Your task to perform on an android device: Open Reddit.com Image 0: 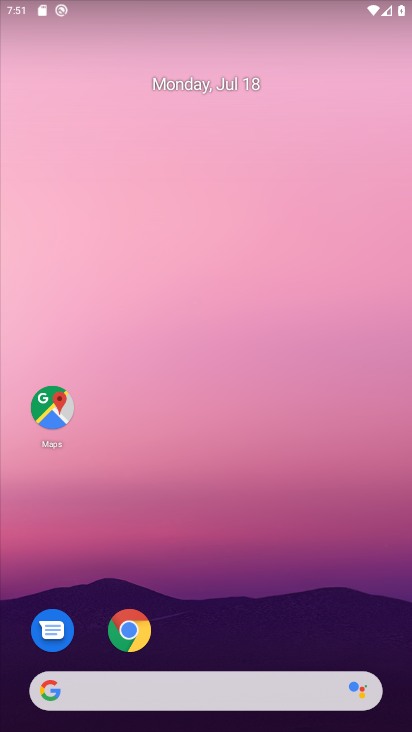
Step 0: drag from (290, 626) to (289, 39)
Your task to perform on an android device: Open Reddit.com Image 1: 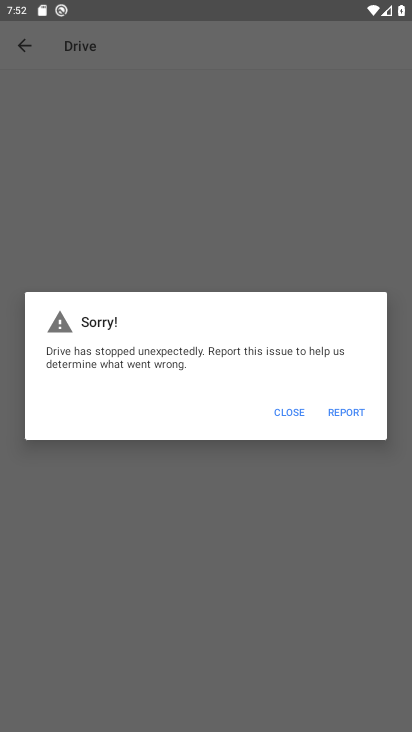
Step 1: press home button
Your task to perform on an android device: Open Reddit.com Image 2: 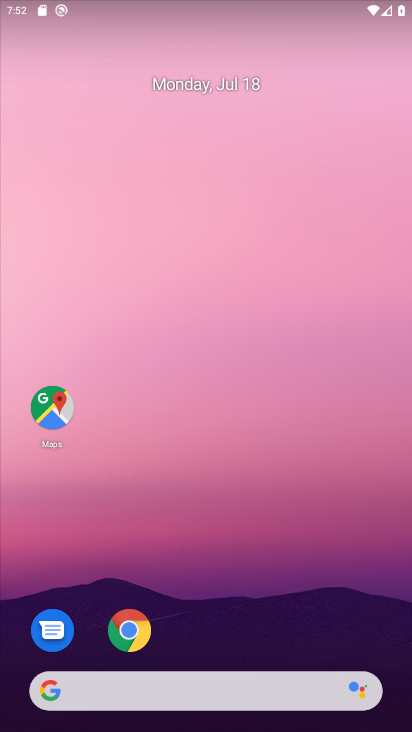
Step 2: drag from (203, 656) to (171, 188)
Your task to perform on an android device: Open Reddit.com Image 3: 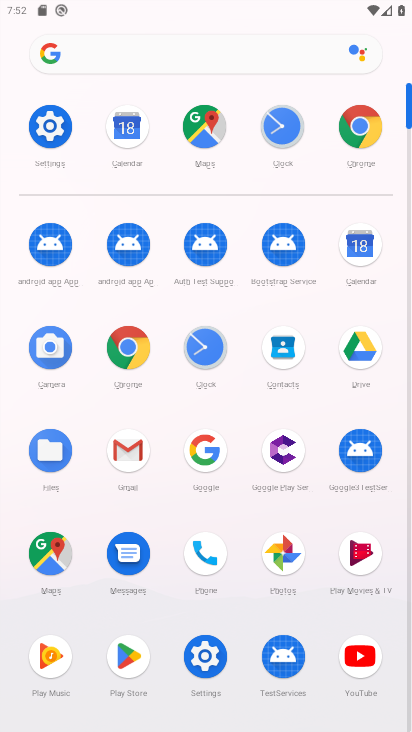
Step 3: click (349, 121)
Your task to perform on an android device: Open Reddit.com Image 4: 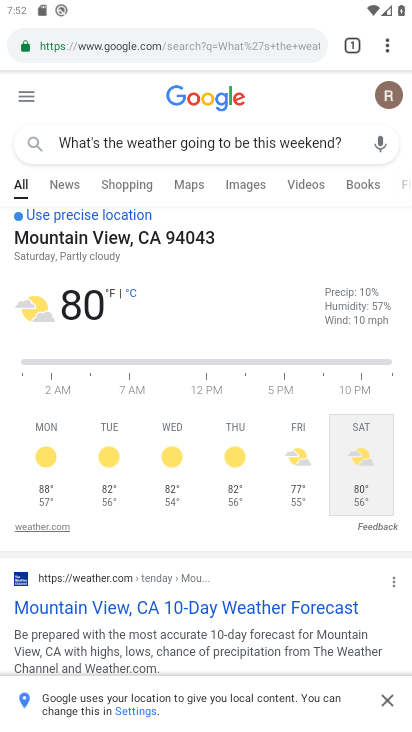
Step 4: click (396, 45)
Your task to perform on an android device: Open Reddit.com Image 5: 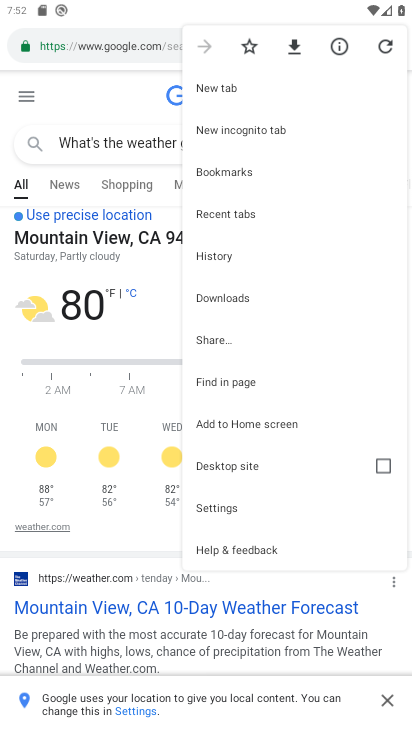
Step 5: click (222, 91)
Your task to perform on an android device: Open Reddit.com Image 6: 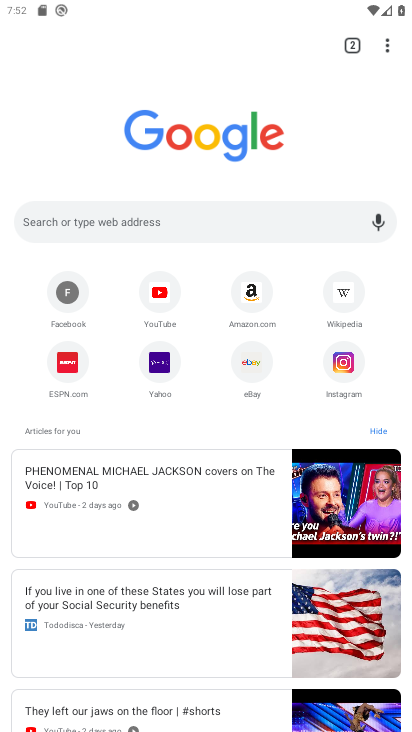
Step 6: click (128, 212)
Your task to perform on an android device: Open Reddit.com Image 7: 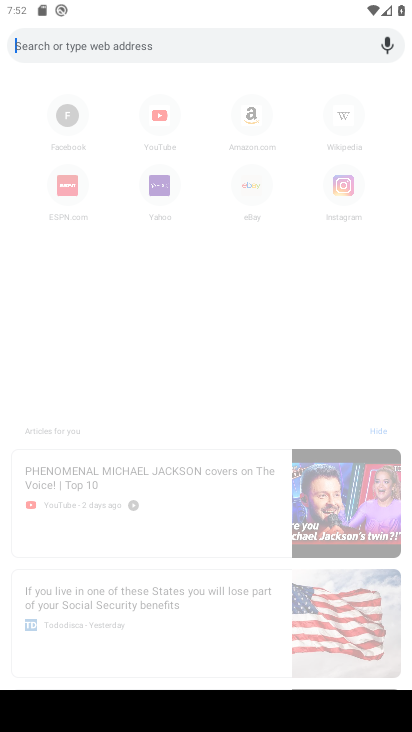
Step 7: type "Reddit.com "
Your task to perform on an android device: Open Reddit.com Image 8: 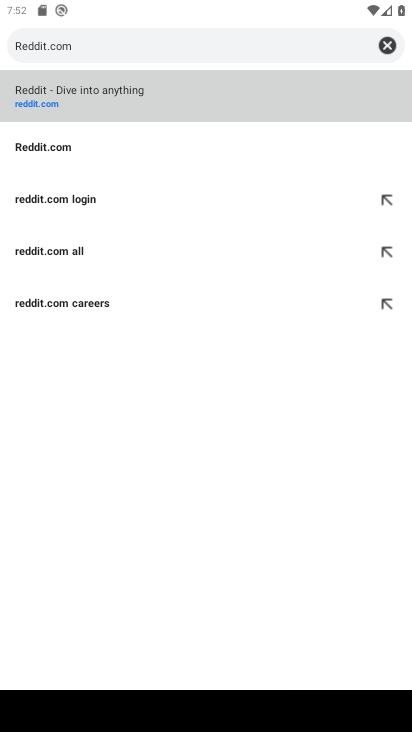
Step 8: click (43, 144)
Your task to perform on an android device: Open Reddit.com Image 9: 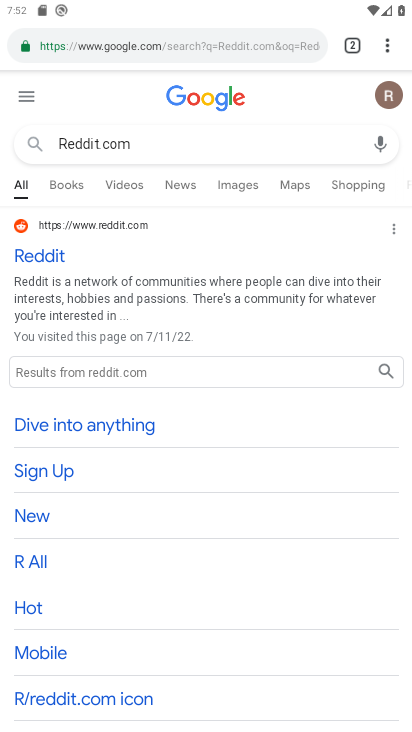
Step 9: task complete